Your task to perform on an android device: remove spam from my inbox in the gmail app Image 0: 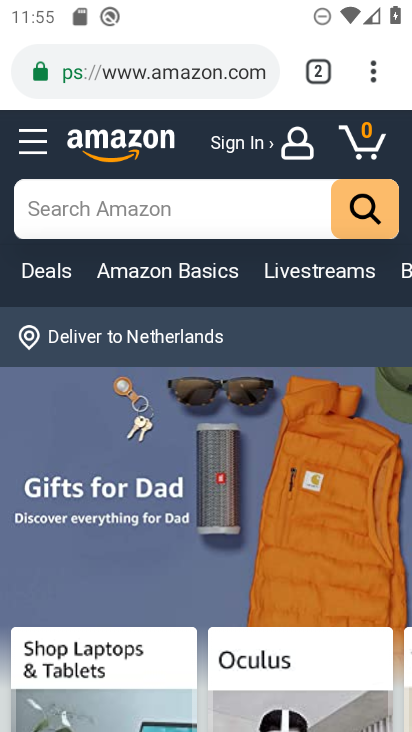
Step 0: press home button
Your task to perform on an android device: remove spam from my inbox in the gmail app Image 1: 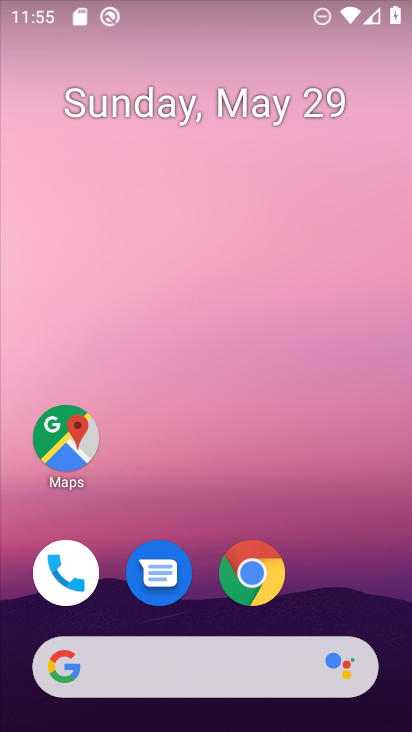
Step 1: drag from (356, 615) to (341, 305)
Your task to perform on an android device: remove spam from my inbox in the gmail app Image 2: 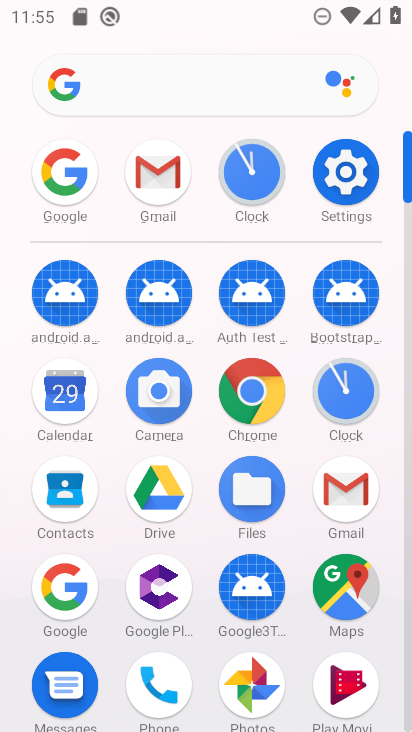
Step 2: click (156, 184)
Your task to perform on an android device: remove spam from my inbox in the gmail app Image 3: 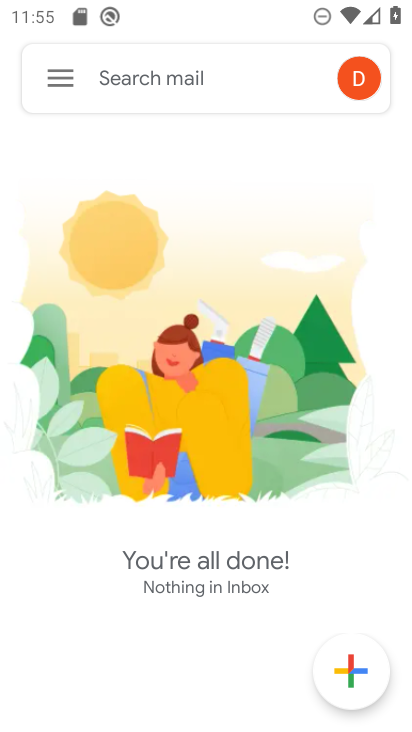
Step 3: click (54, 79)
Your task to perform on an android device: remove spam from my inbox in the gmail app Image 4: 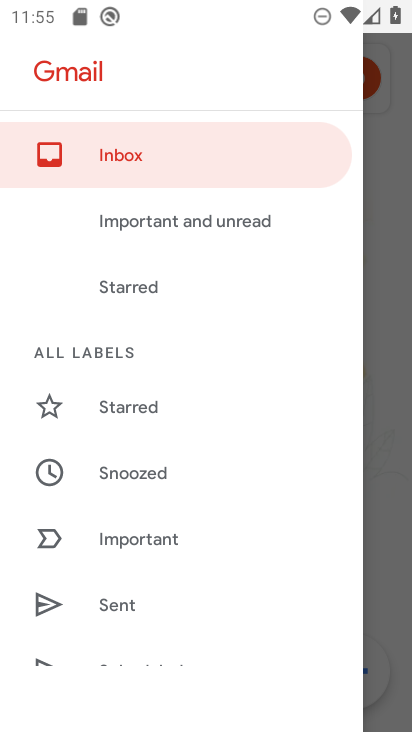
Step 4: drag from (257, 610) to (260, 292)
Your task to perform on an android device: remove spam from my inbox in the gmail app Image 5: 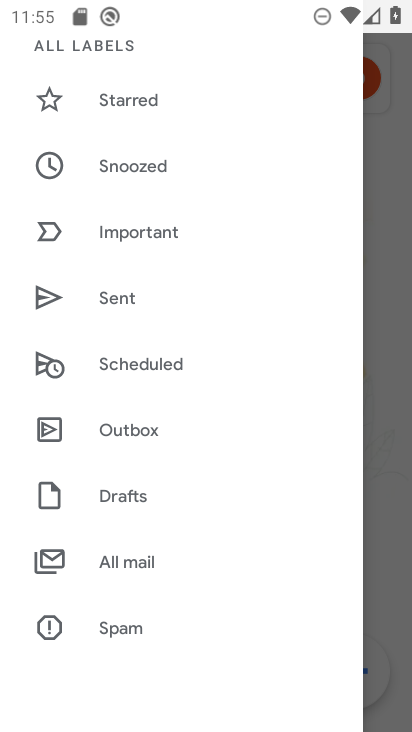
Step 5: click (173, 638)
Your task to perform on an android device: remove spam from my inbox in the gmail app Image 6: 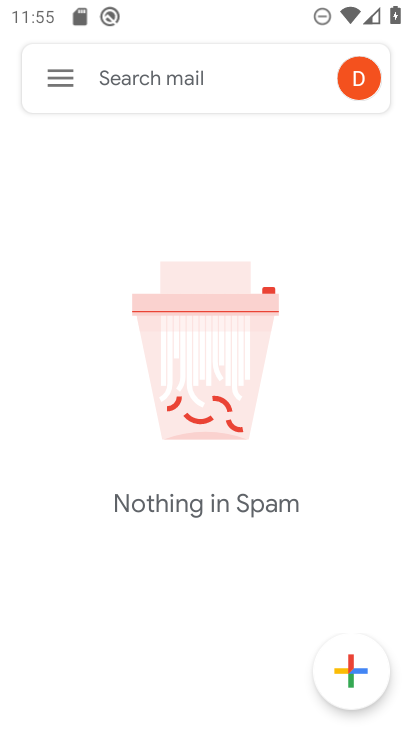
Step 6: task complete